Your task to perform on an android device: Open the calendar app, open the side menu, and click the "Day" option Image 0: 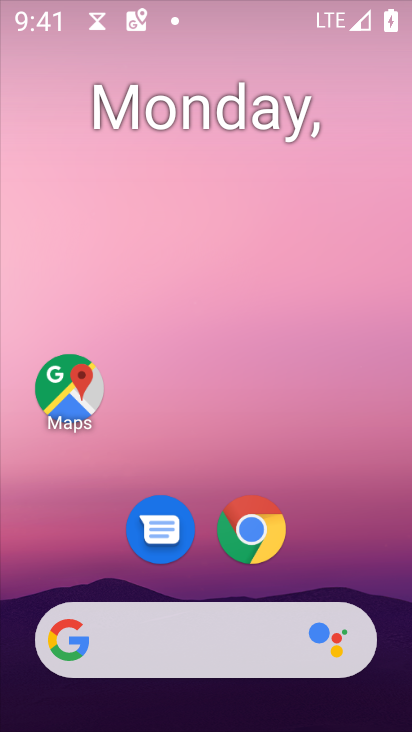
Step 0: drag from (204, 315) to (142, 139)
Your task to perform on an android device: Open the calendar app, open the side menu, and click the "Day" option Image 1: 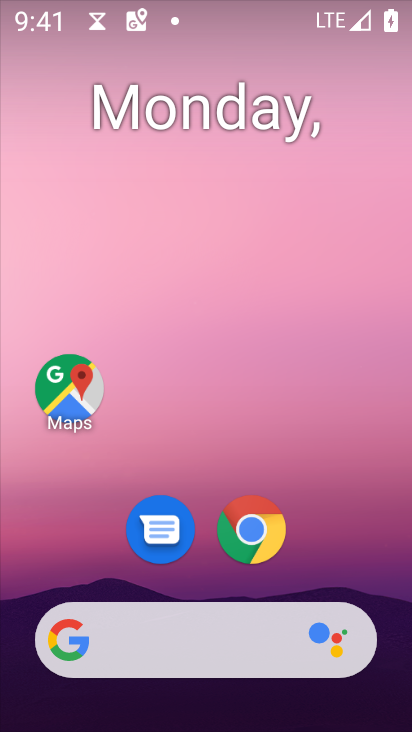
Step 1: drag from (230, 687) to (152, 37)
Your task to perform on an android device: Open the calendar app, open the side menu, and click the "Day" option Image 2: 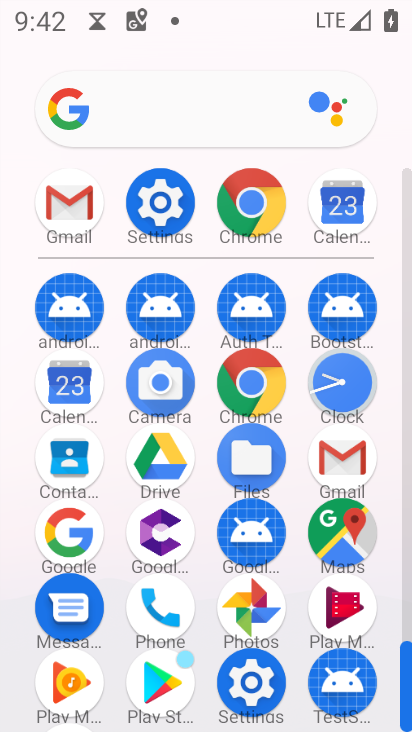
Step 2: click (53, 395)
Your task to perform on an android device: Open the calendar app, open the side menu, and click the "Day" option Image 3: 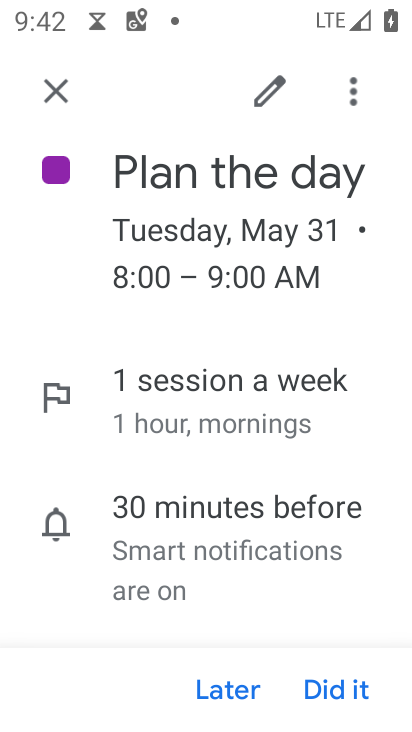
Step 3: click (318, 700)
Your task to perform on an android device: Open the calendar app, open the side menu, and click the "Day" option Image 4: 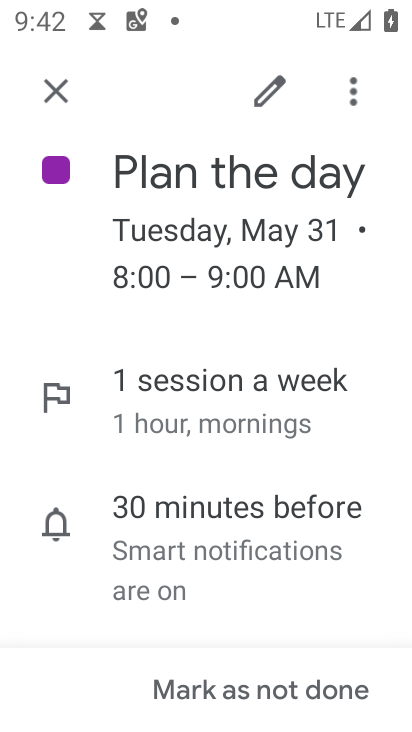
Step 4: click (40, 88)
Your task to perform on an android device: Open the calendar app, open the side menu, and click the "Day" option Image 5: 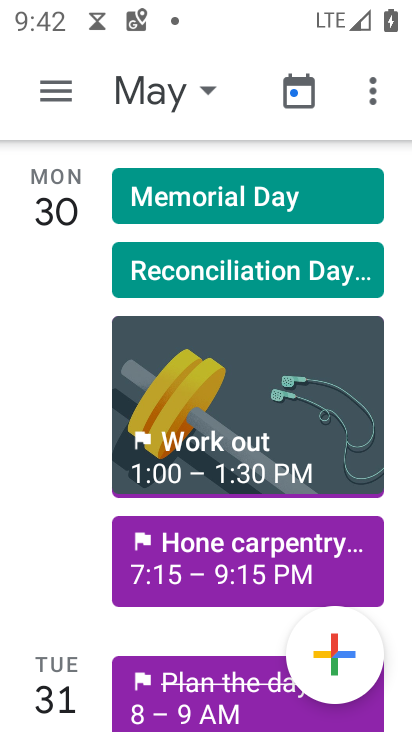
Step 5: click (48, 83)
Your task to perform on an android device: Open the calendar app, open the side menu, and click the "Day" option Image 6: 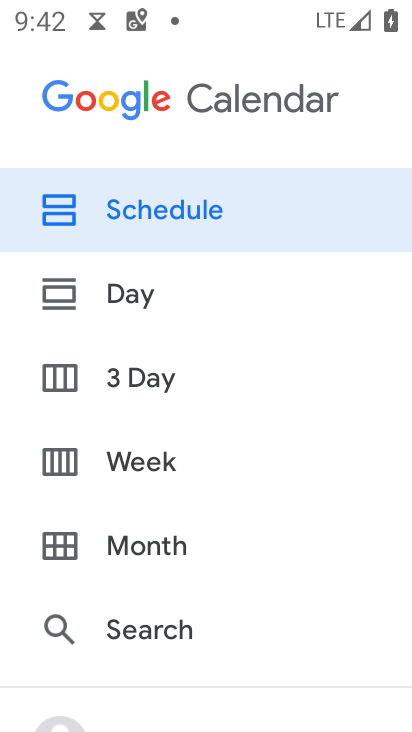
Step 6: click (117, 301)
Your task to perform on an android device: Open the calendar app, open the side menu, and click the "Day" option Image 7: 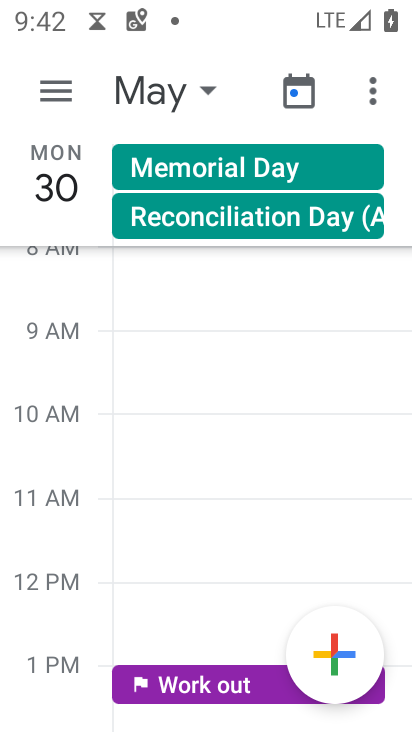
Step 7: click (45, 94)
Your task to perform on an android device: Open the calendar app, open the side menu, and click the "Day" option Image 8: 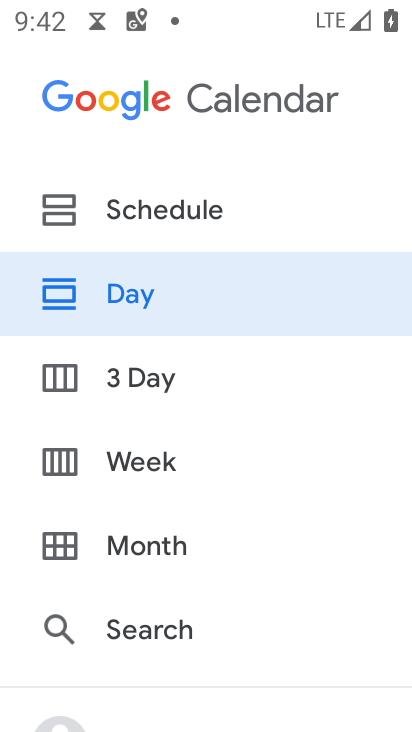
Step 8: click (274, 287)
Your task to perform on an android device: Open the calendar app, open the side menu, and click the "Day" option Image 9: 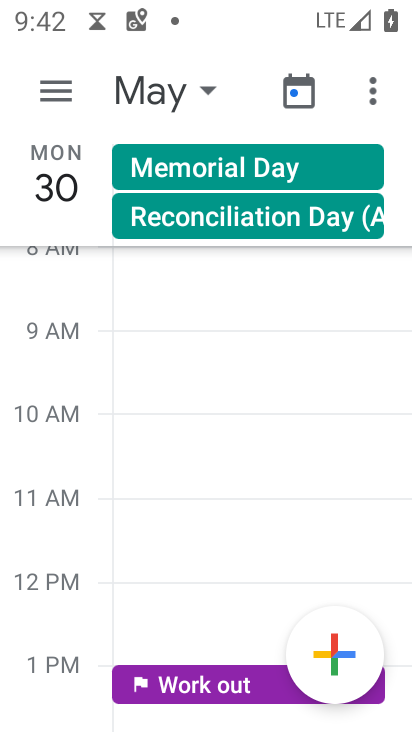
Step 9: task complete